Your task to perform on an android device: Open the phone app and click the voicemail tab. Image 0: 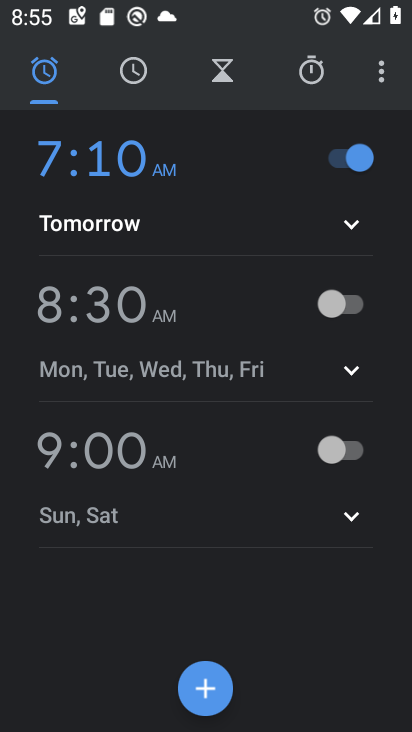
Step 0: press home button
Your task to perform on an android device: Open the phone app and click the voicemail tab. Image 1: 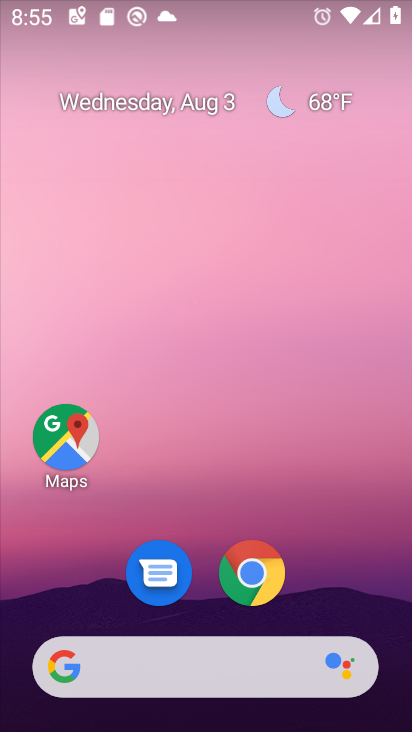
Step 1: drag from (366, 616) to (359, 3)
Your task to perform on an android device: Open the phone app and click the voicemail tab. Image 2: 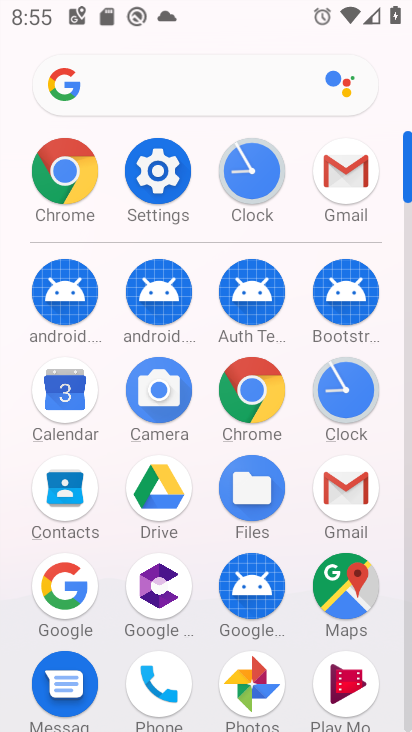
Step 2: click (149, 674)
Your task to perform on an android device: Open the phone app and click the voicemail tab. Image 3: 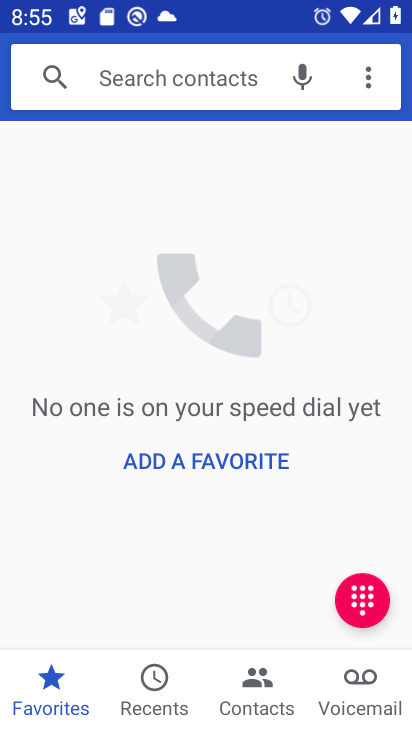
Step 3: click (356, 705)
Your task to perform on an android device: Open the phone app and click the voicemail tab. Image 4: 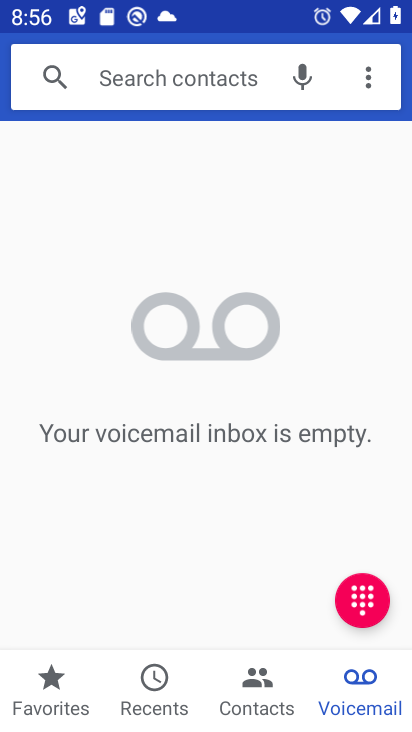
Step 4: task complete